Your task to perform on an android device: move an email to a new category in the gmail app Image 0: 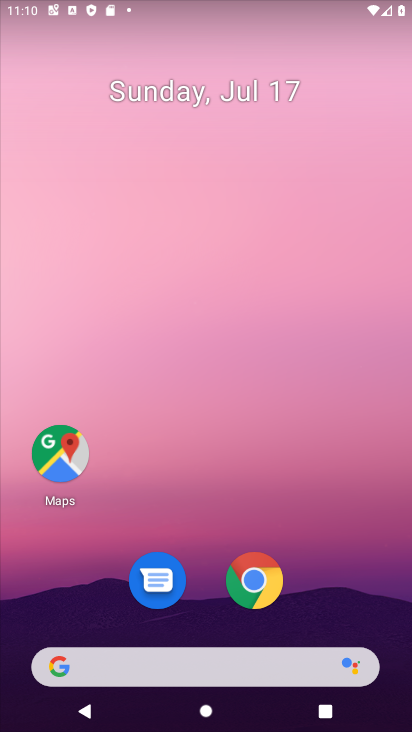
Step 0: drag from (213, 666) to (255, 79)
Your task to perform on an android device: move an email to a new category in the gmail app Image 1: 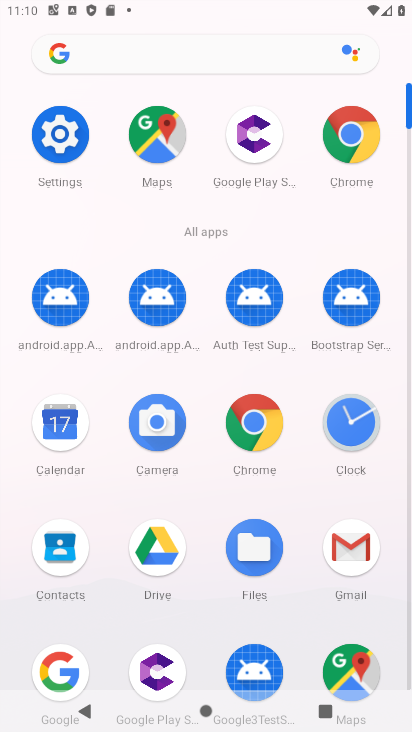
Step 1: click (358, 551)
Your task to perform on an android device: move an email to a new category in the gmail app Image 2: 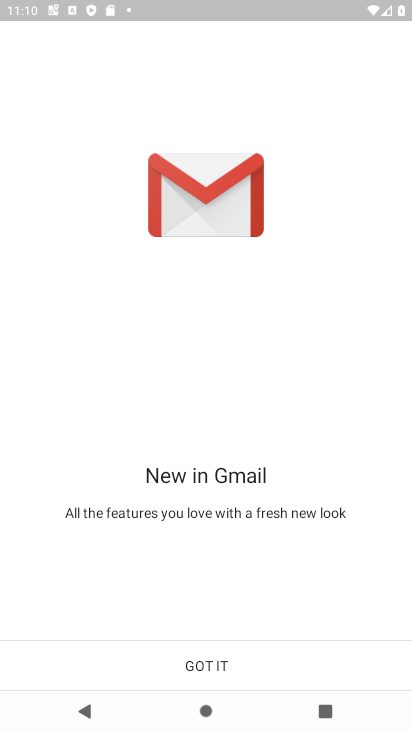
Step 2: click (238, 671)
Your task to perform on an android device: move an email to a new category in the gmail app Image 3: 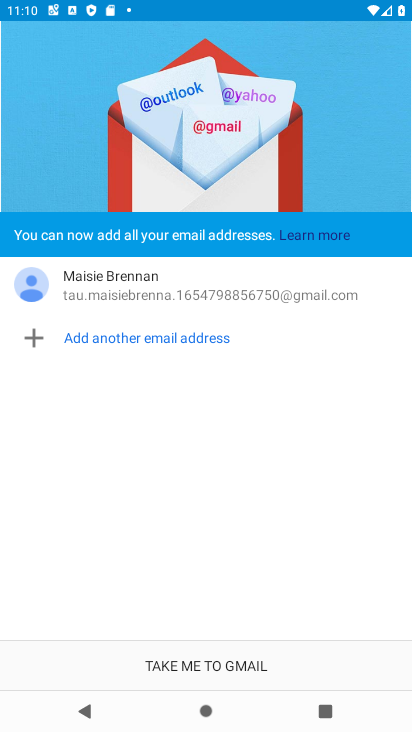
Step 3: click (259, 659)
Your task to perform on an android device: move an email to a new category in the gmail app Image 4: 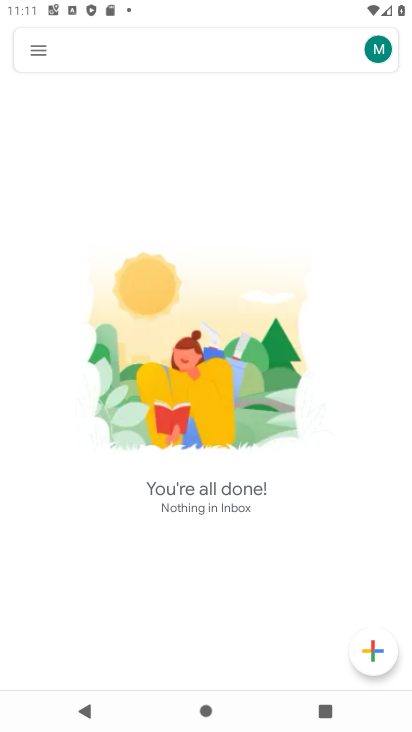
Step 4: click (45, 57)
Your task to perform on an android device: move an email to a new category in the gmail app Image 5: 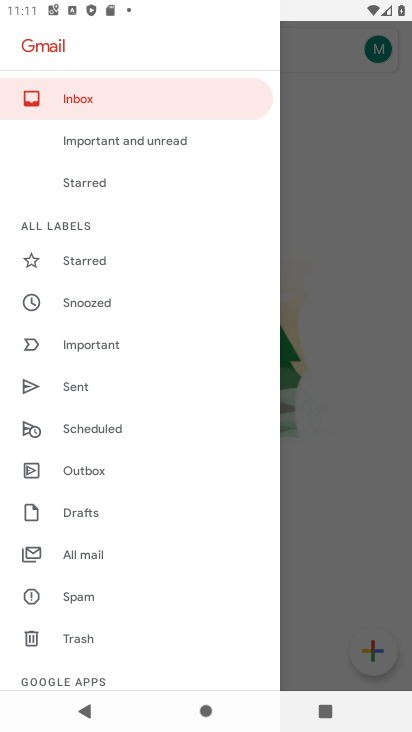
Step 5: click (76, 555)
Your task to perform on an android device: move an email to a new category in the gmail app Image 6: 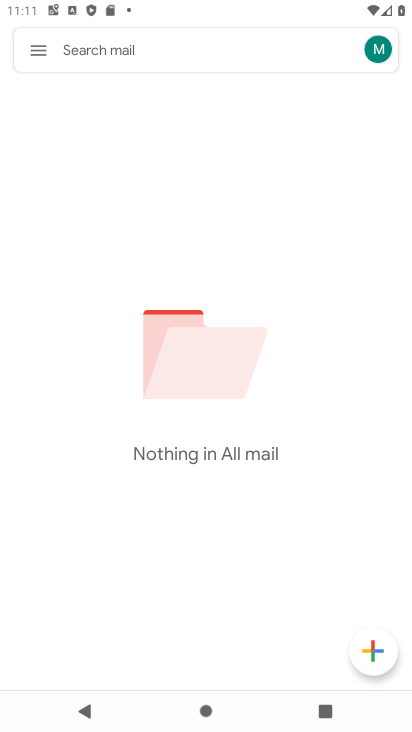
Step 6: task complete